Your task to perform on an android device: turn off data saver in the chrome app Image 0: 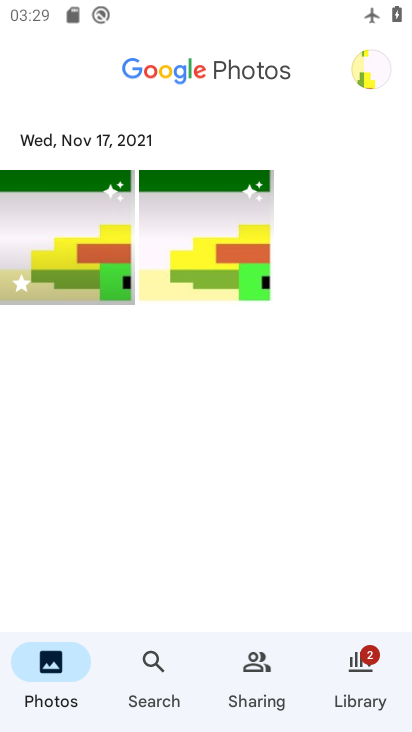
Step 0: press home button
Your task to perform on an android device: turn off data saver in the chrome app Image 1: 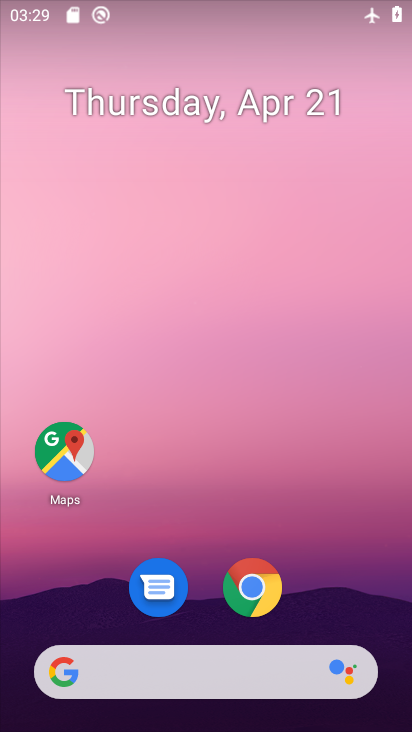
Step 1: drag from (349, 593) to (368, 149)
Your task to perform on an android device: turn off data saver in the chrome app Image 2: 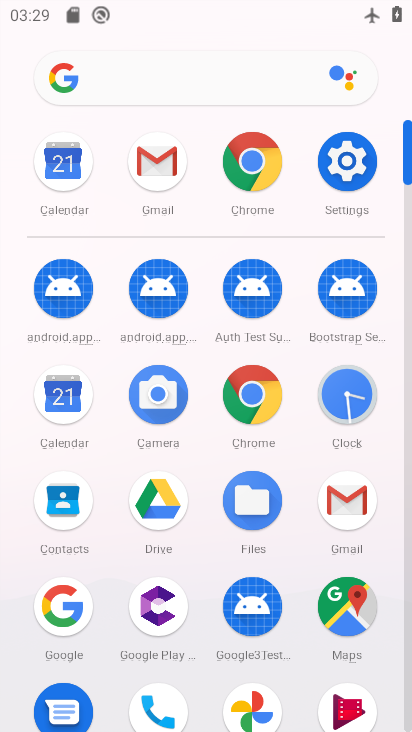
Step 2: click (266, 405)
Your task to perform on an android device: turn off data saver in the chrome app Image 3: 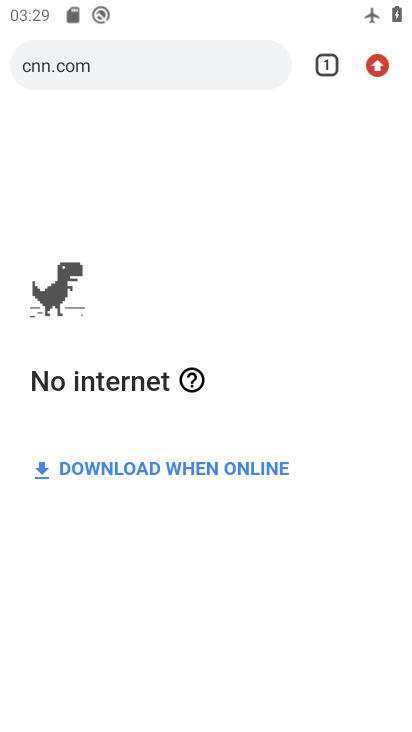
Step 3: click (375, 67)
Your task to perform on an android device: turn off data saver in the chrome app Image 4: 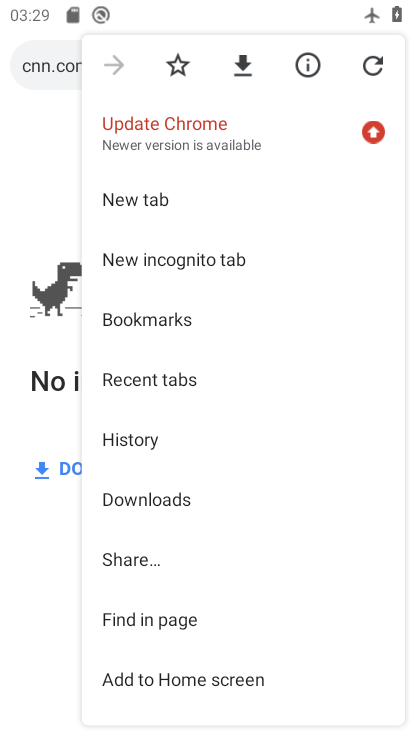
Step 4: drag from (339, 583) to (343, 459)
Your task to perform on an android device: turn off data saver in the chrome app Image 5: 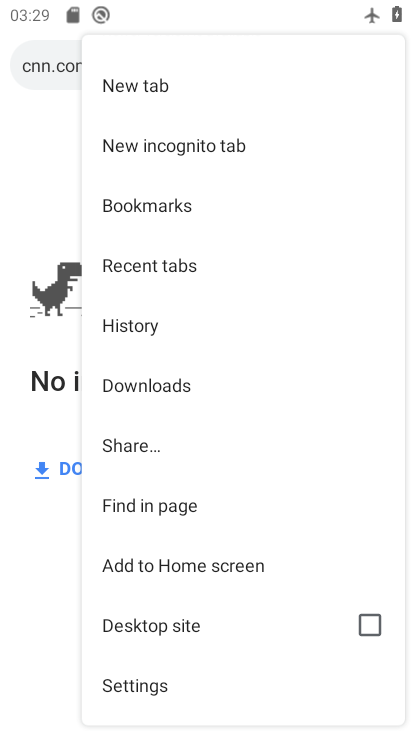
Step 5: drag from (307, 602) to (315, 458)
Your task to perform on an android device: turn off data saver in the chrome app Image 6: 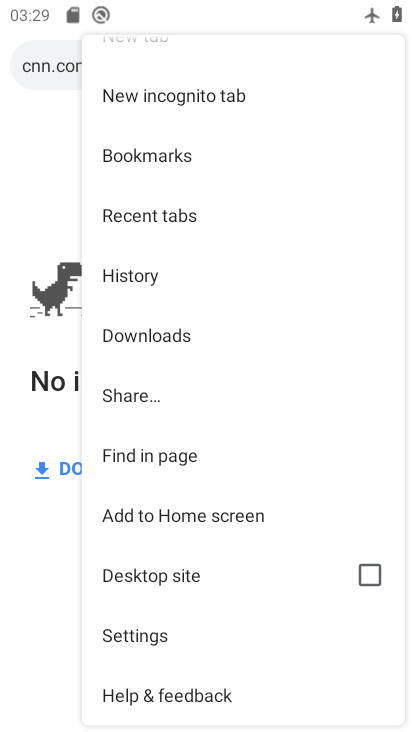
Step 6: click (169, 647)
Your task to perform on an android device: turn off data saver in the chrome app Image 7: 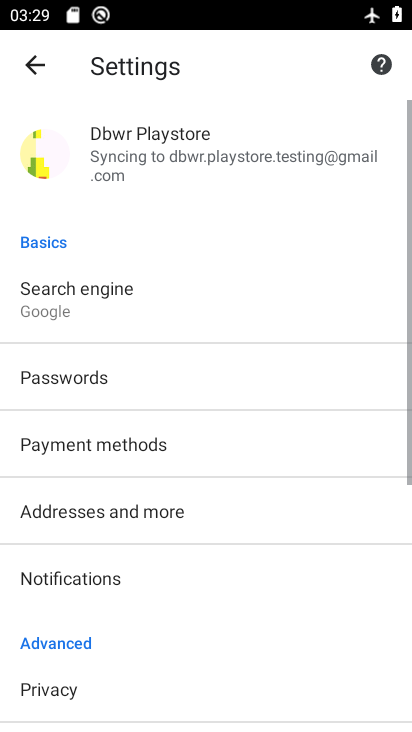
Step 7: drag from (287, 611) to (305, 481)
Your task to perform on an android device: turn off data saver in the chrome app Image 8: 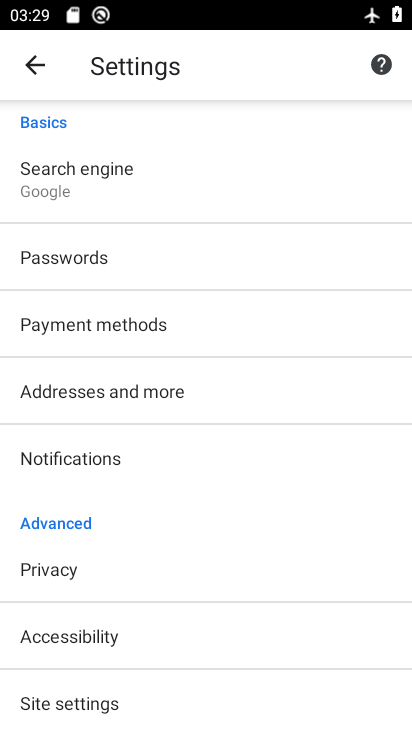
Step 8: drag from (295, 631) to (320, 499)
Your task to perform on an android device: turn off data saver in the chrome app Image 9: 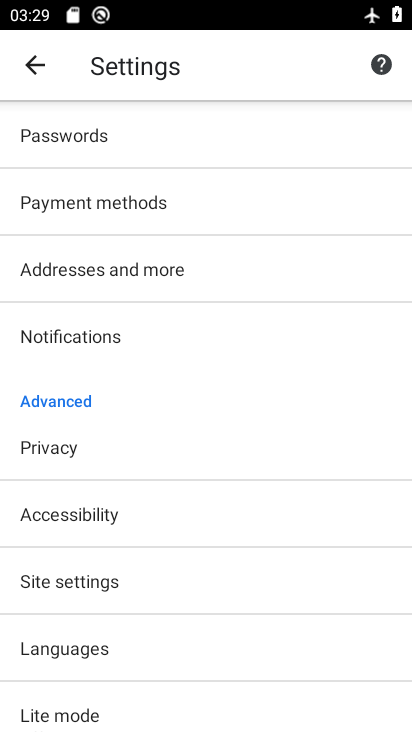
Step 9: drag from (307, 622) to (304, 491)
Your task to perform on an android device: turn off data saver in the chrome app Image 10: 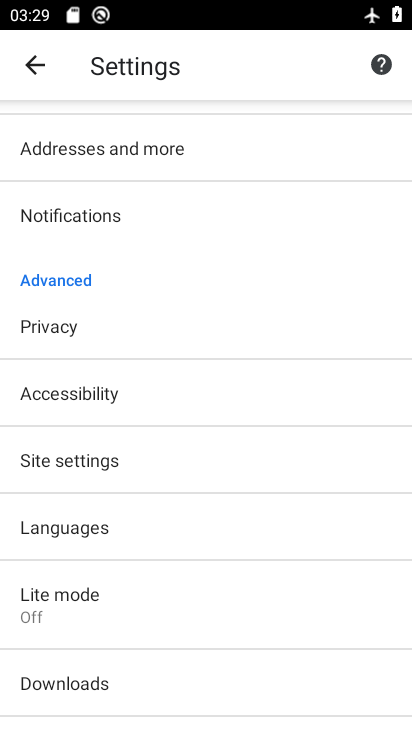
Step 10: drag from (307, 659) to (314, 503)
Your task to perform on an android device: turn off data saver in the chrome app Image 11: 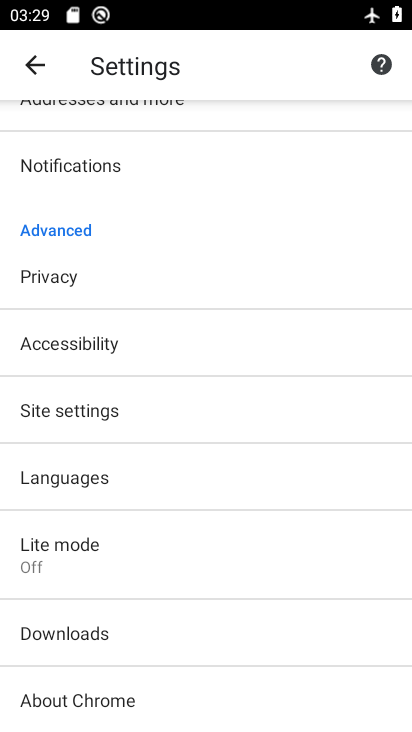
Step 11: drag from (322, 348) to (340, 486)
Your task to perform on an android device: turn off data saver in the chrome app Image 12: 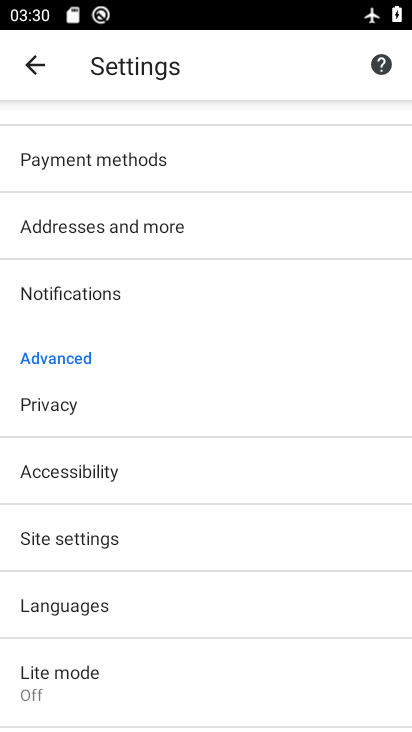
Step 12: drag from (329, 334) to (315, 451)
Your task to perform on an android device: turn off data saver in the chrome app Image 13: 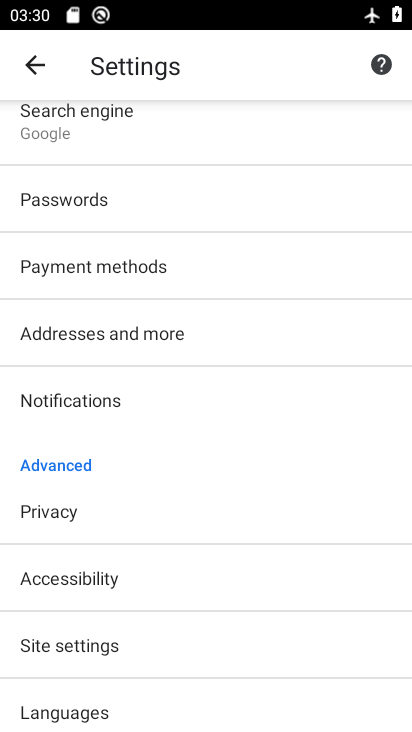
Step 13: drag from (252, 611) to (288, 401)
Your task to perform on an android device: turn off data saver in the chrome app Image 14: 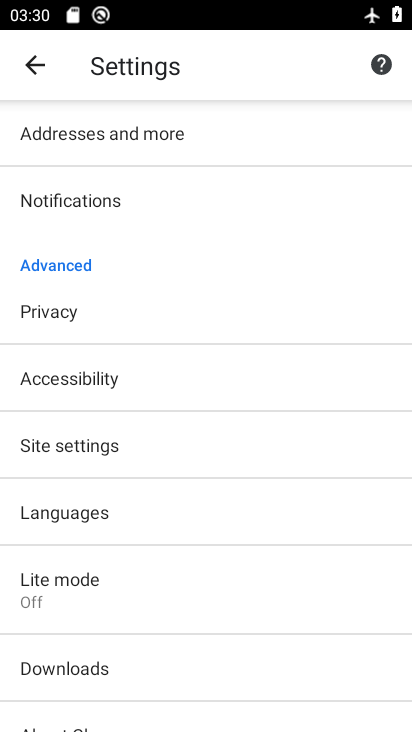
Step 14: click (266, 581)
Your task to perform on an android device: turn off data saver in the chrome app Image 15: 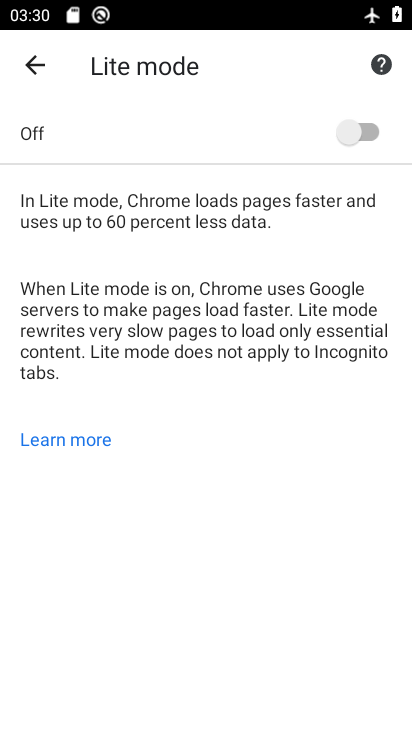
Step 15: task complete